Your task to perform on an android device: Open Google Chrome and click the shortcut for Amazon.com Image 0: 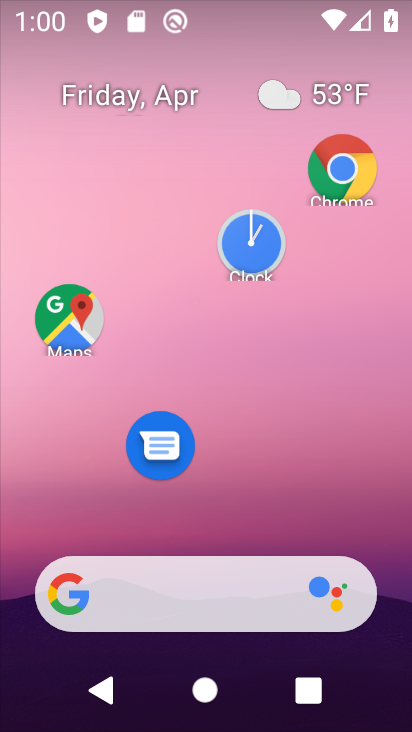
Step 0: click (337, 173)
Your task to perform on an android device: Open Google Chrome and click the shortcut for Amazon.com Image 1: 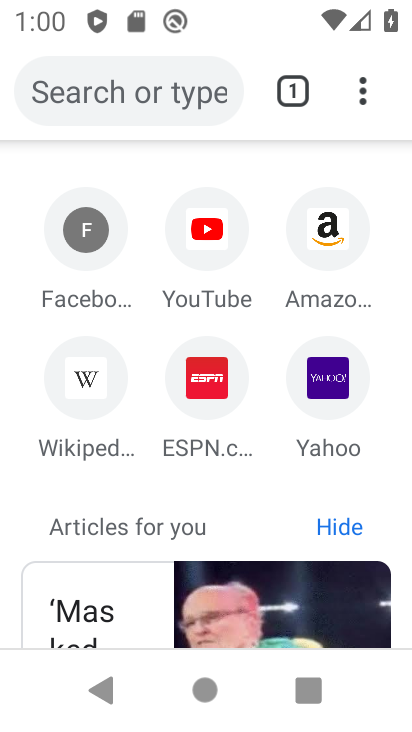
Step 1: click (330, 207)
Your task to perform on an android device: Open Google Chrome and click the shortcut for Amazon.com Image 2: 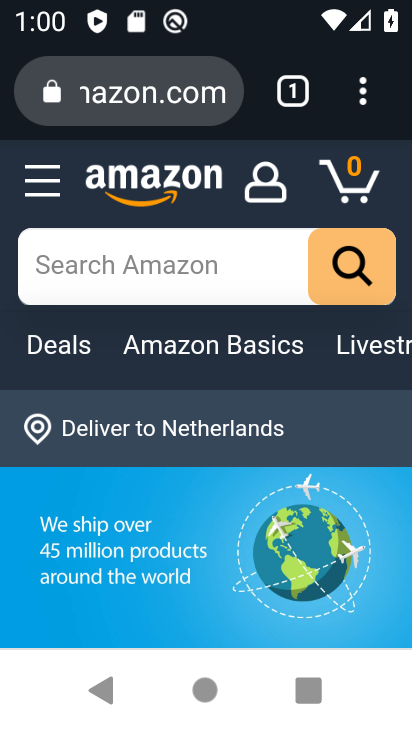
Step 2: task complete